Your task to perform on an android device: refresh tabs in the chrome app Image 0: 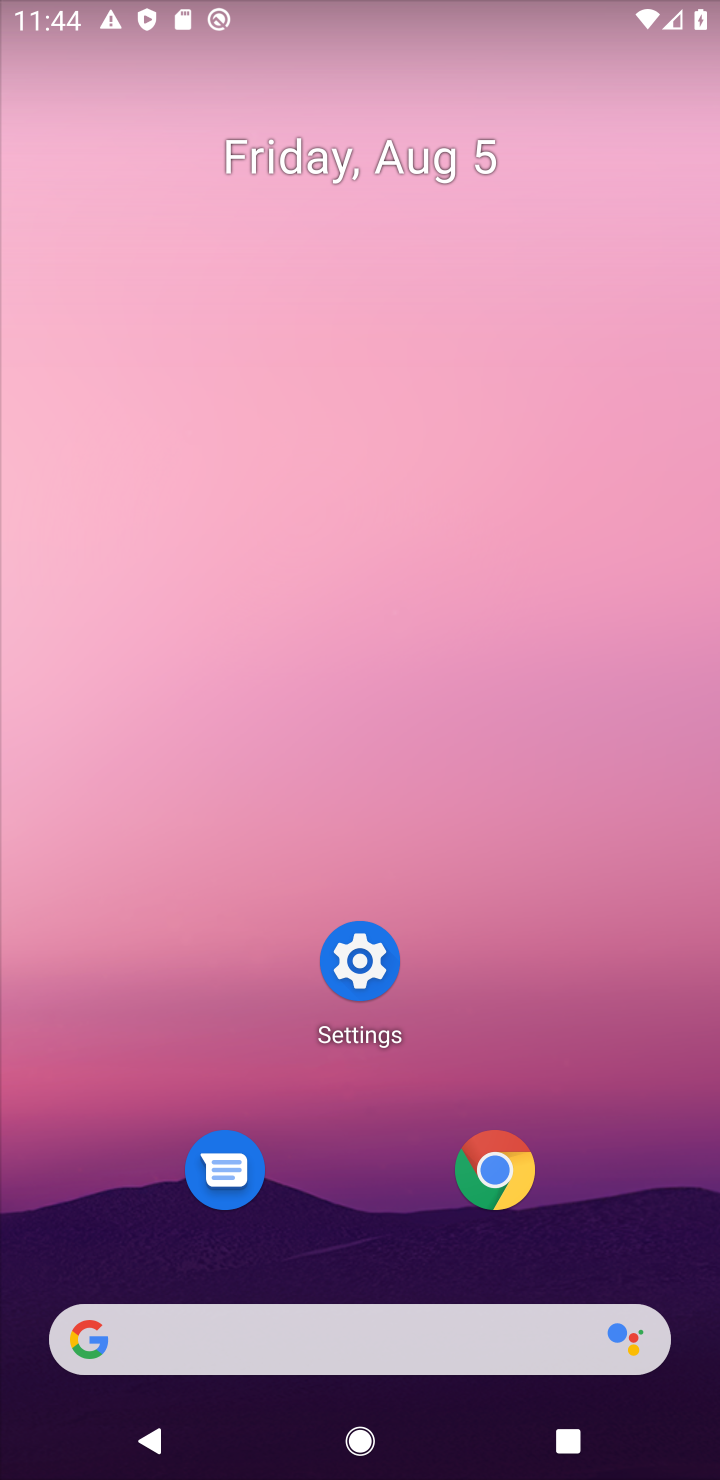
Step 0: click (481, 1176)
Your task to perform on an android device: refresh tabs in the chrome app Image 1: 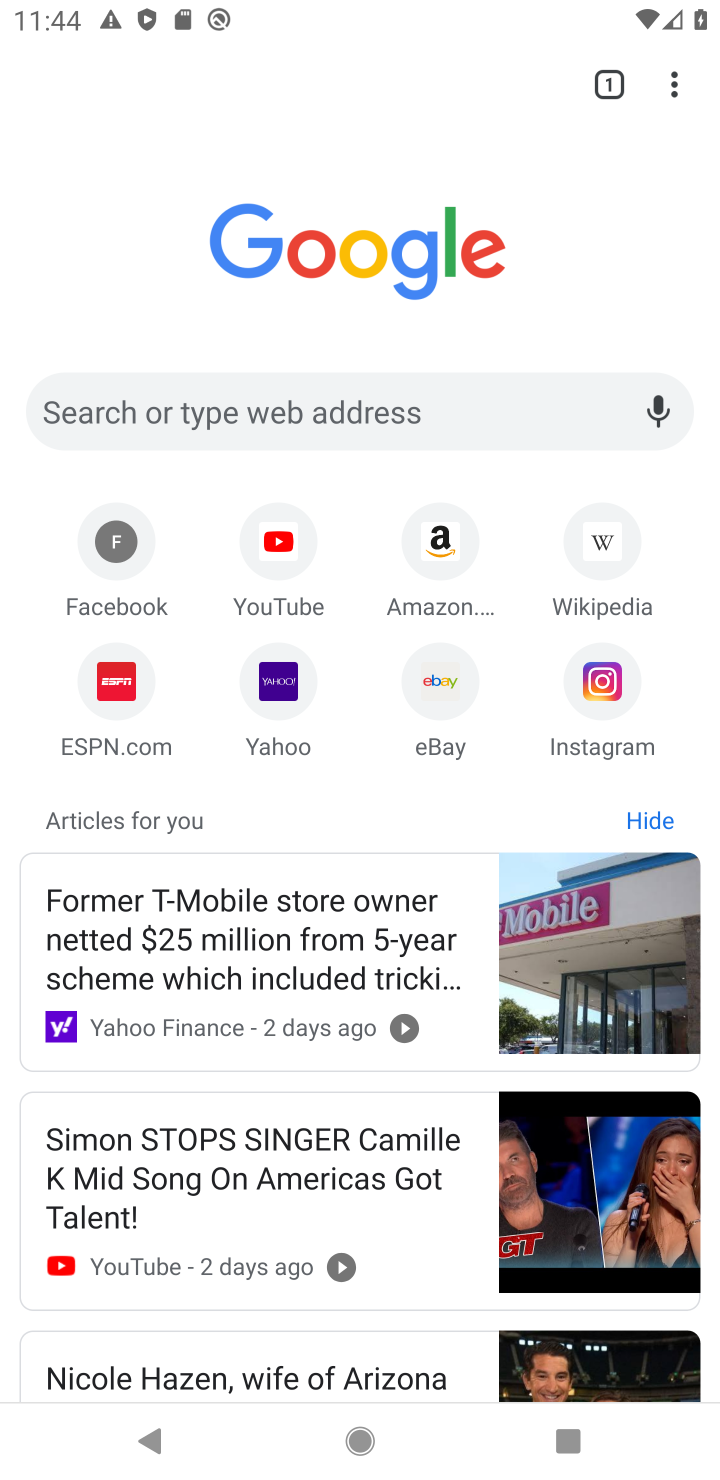
Step 1: click (683, 78)
Your task to perform on an android device: refresh tabs in the chrome app Image 2: 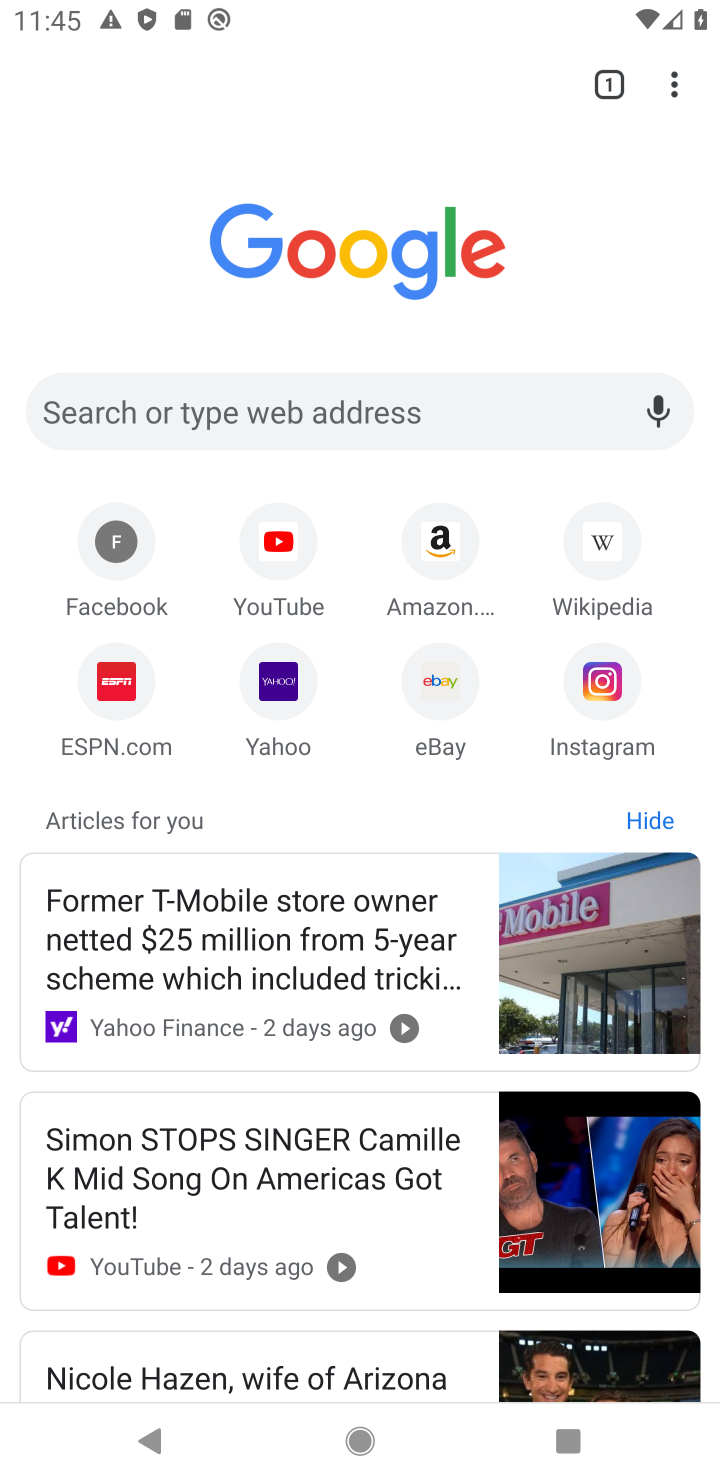
Step 2: click (674, 87)
Your task to perform on an android device: refresh tabs in the chrome app Image 3: 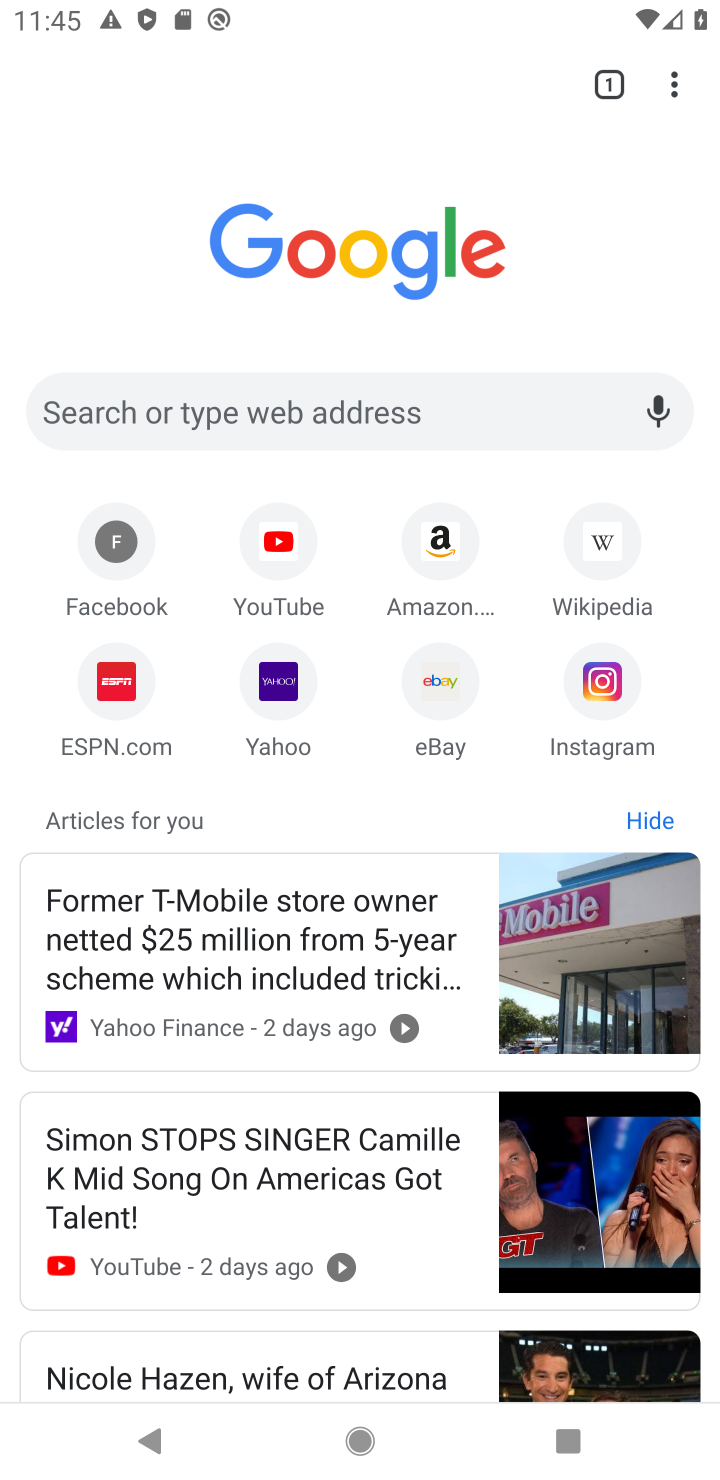
Step 3: click (677, 84)
Your task to perform on an android device: refresh tabs in the chrome app Image 4: 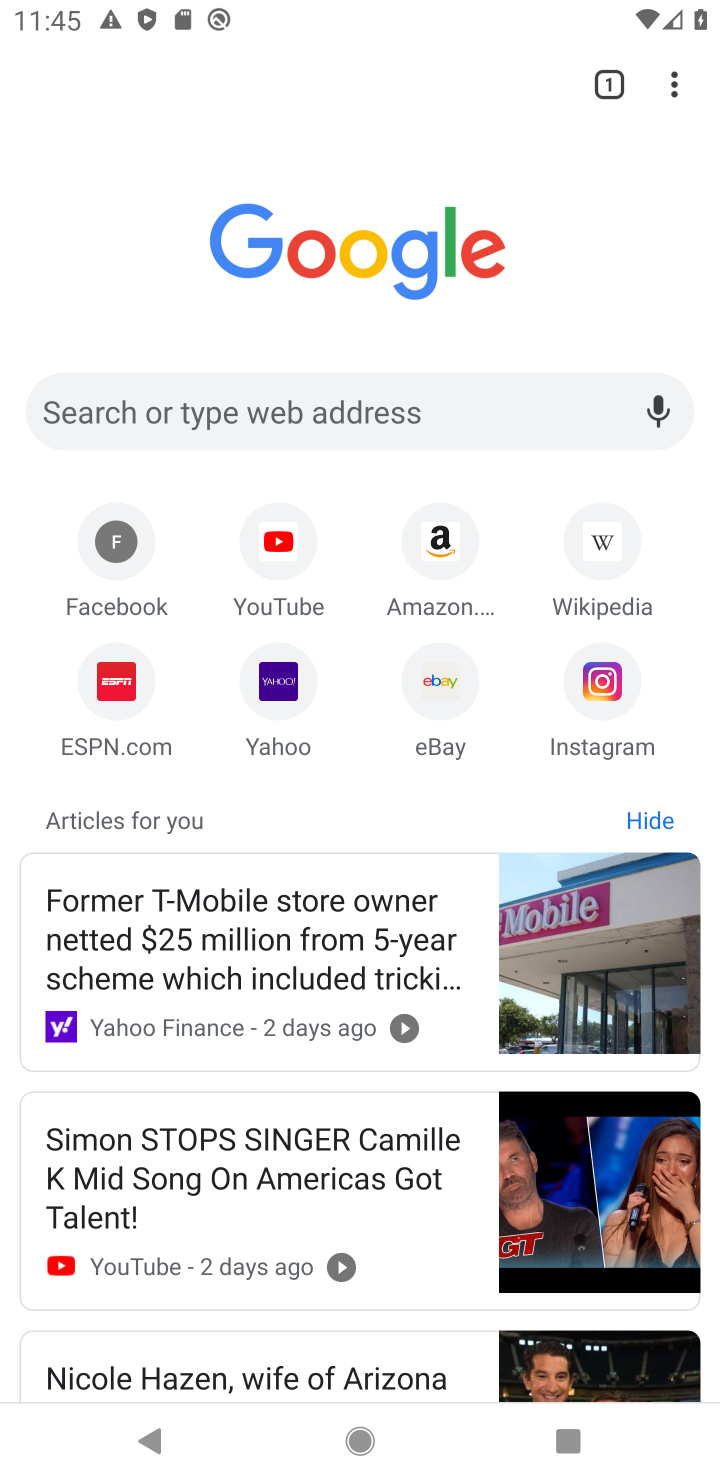
Step 4: click (677, 84)
Your task to perform on an android device: refresh tabs in the chrome app Image 5: 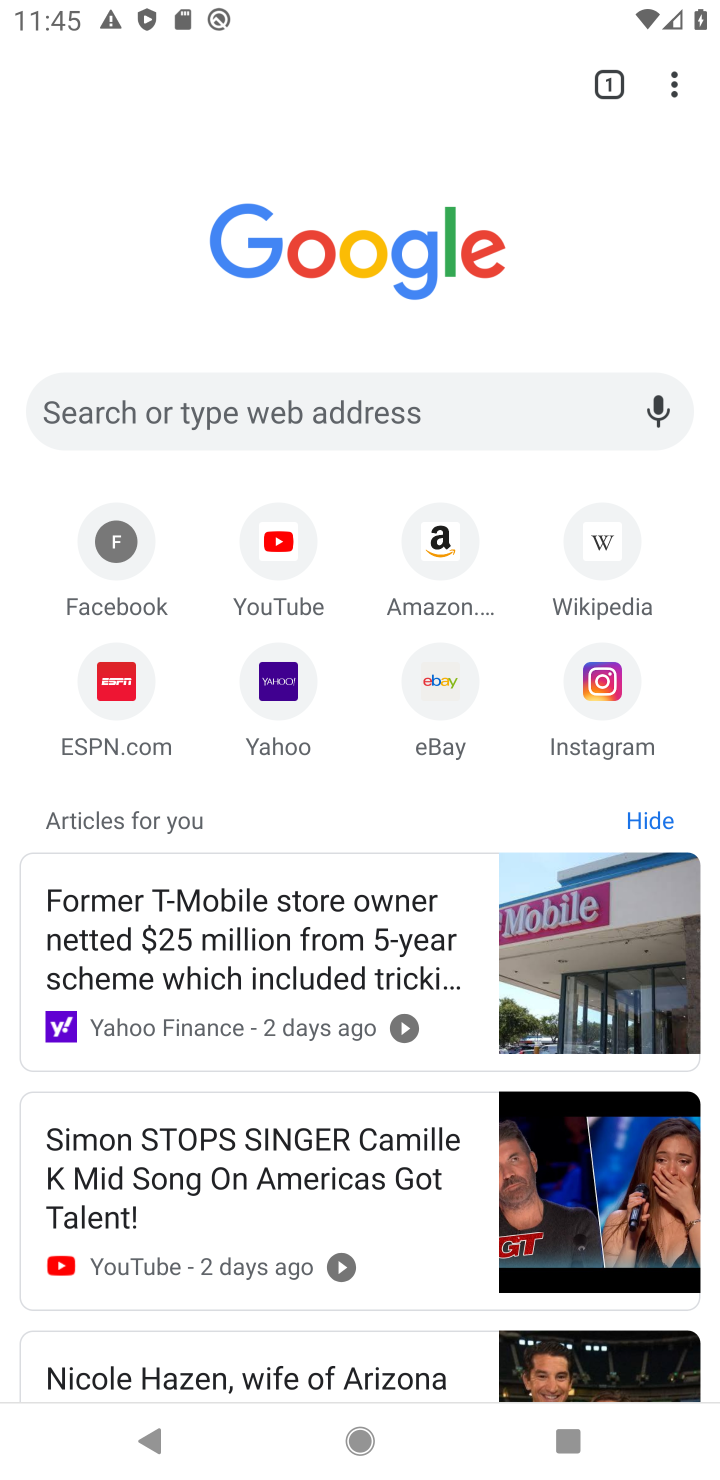
Step 5: click (677, 84)
Your task to perform on an android device: refresh tabs in the chrome app Image 6: 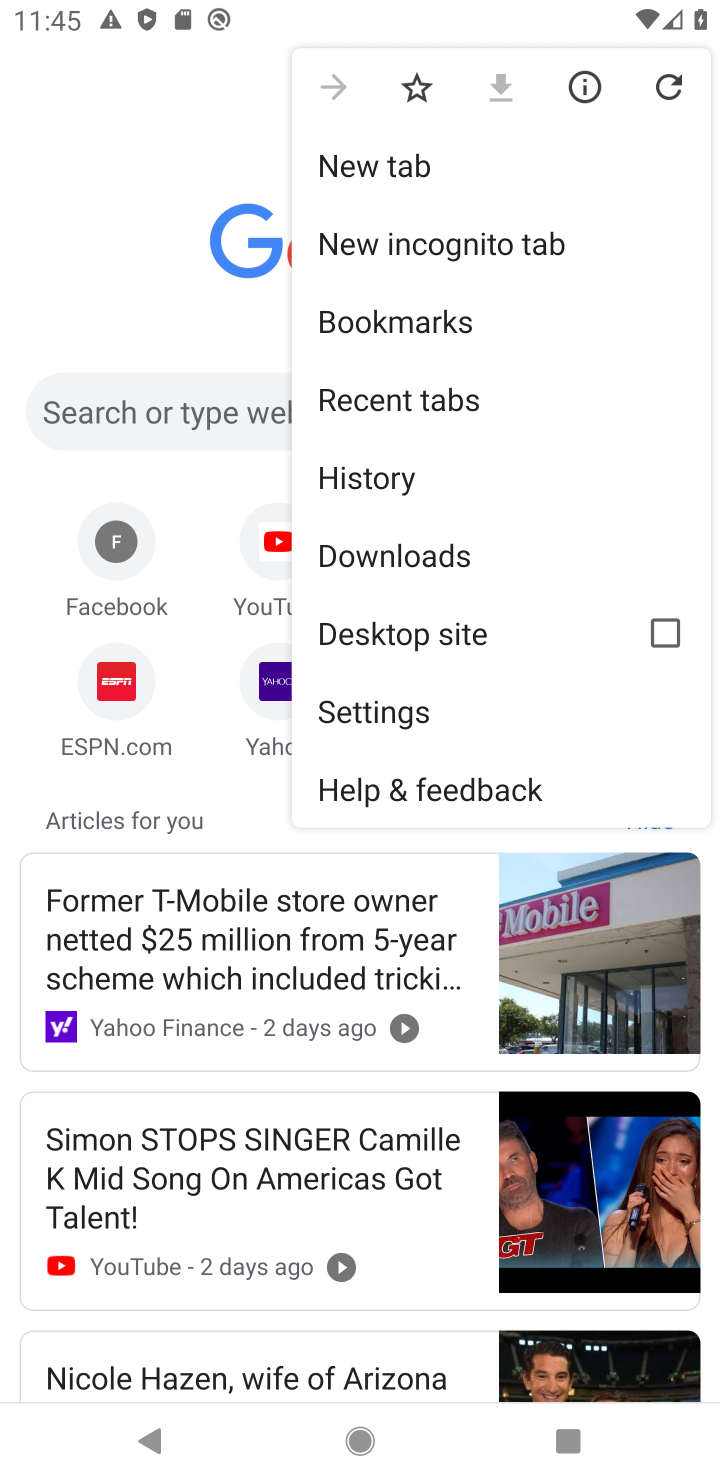
Step 6: click (661, 87)
Your task to perform on an android device: refresh tabs in the chrome app Image 7: 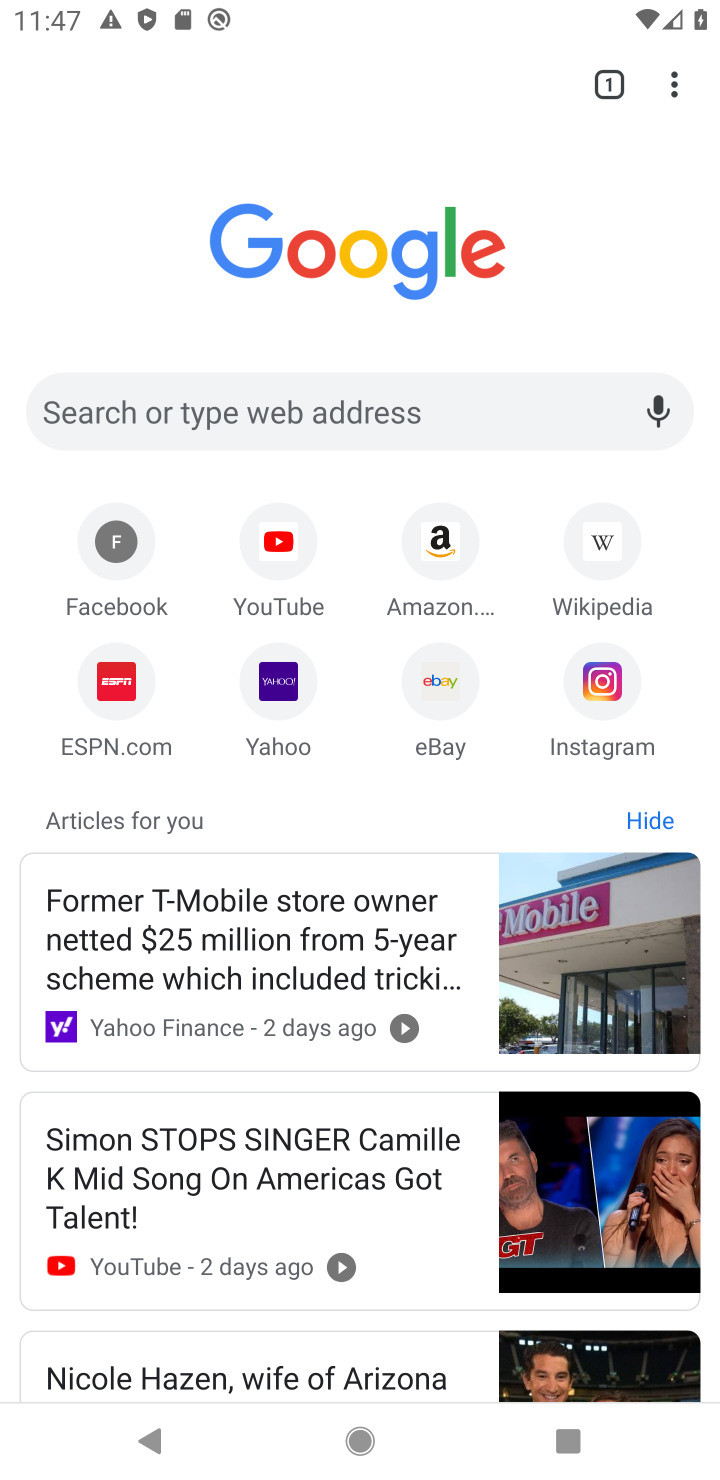
Step 7: task complete